Your task to perform on an android device: turn off data saver in the chrome app Image 0: 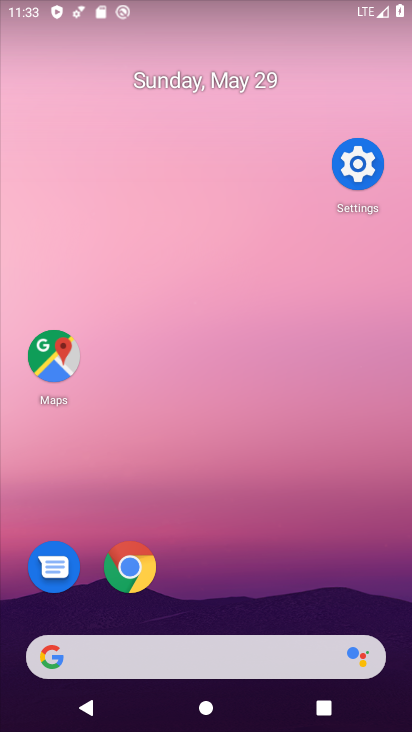
Step 0: drag from (399, 573) to (336, 167)
Your task to perform on an android device: turn off data saver in the chrome app Image 1: 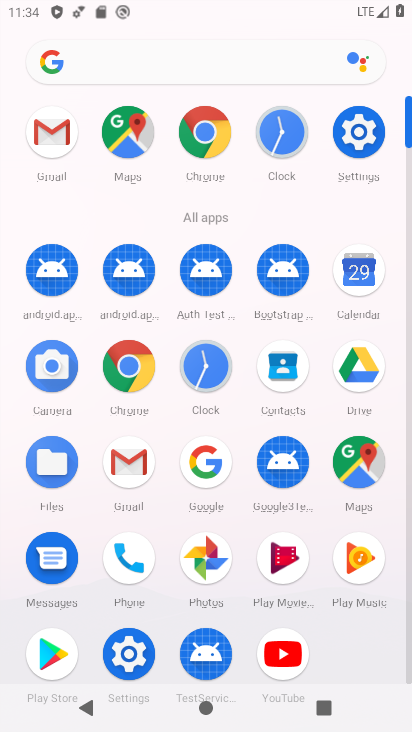
Step 1: click (136, 371)
Your task to perform on an android device: turn off data saver in the chrome app Image 2: 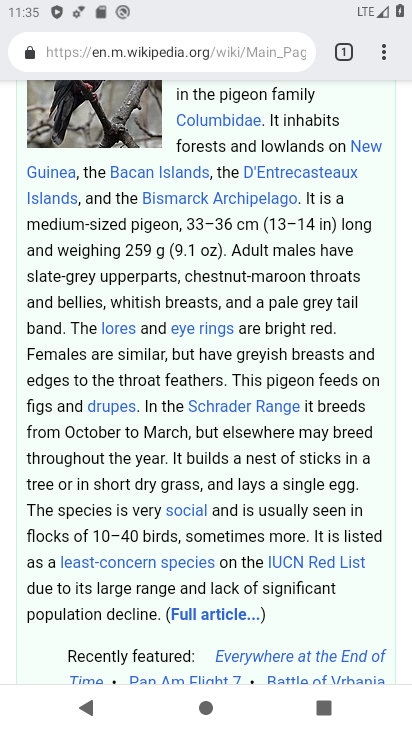
Step 2: task complete